Your task to perform on an android device: toggle improve location accuracy Image 0: 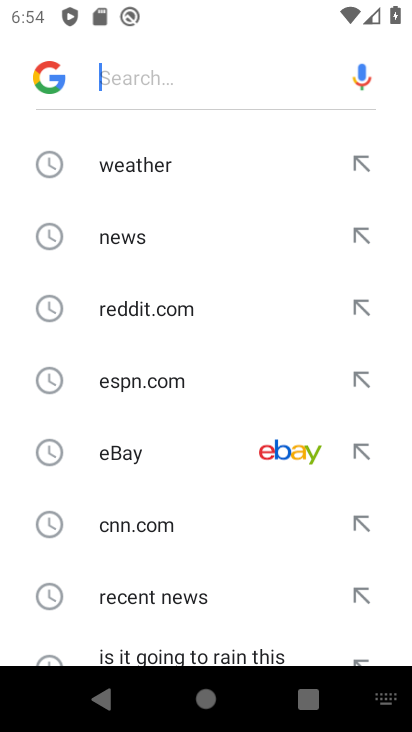
Step 0: press home button
Your task to perform on an android device: toggle improve location accuracy Image 1: 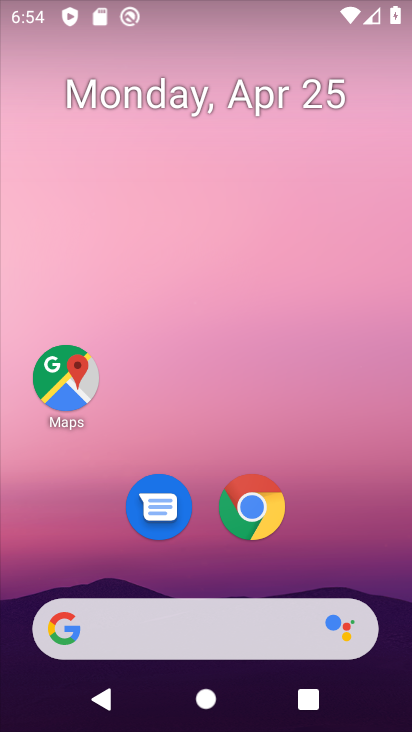
Step 1: drag from (334, 554) to (340, 29)
Your task to perform on an android device: toggle improve location accuracy Image 2: 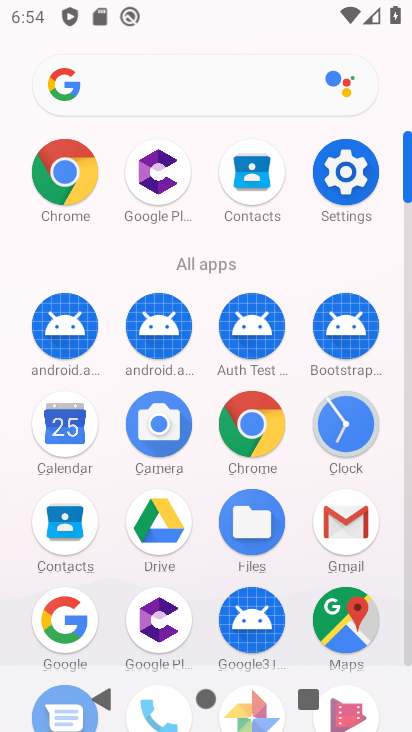
Step 2: click (354, 172)
Your task to perform on an android device: toggle improve location accuracy Image 3: 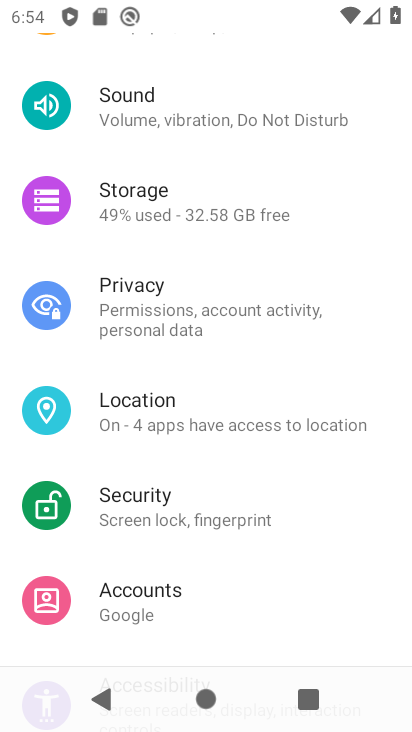
Step 3: click (218, 431)
Your task to perform on an android device: toggle improve location accuracy Image 4: 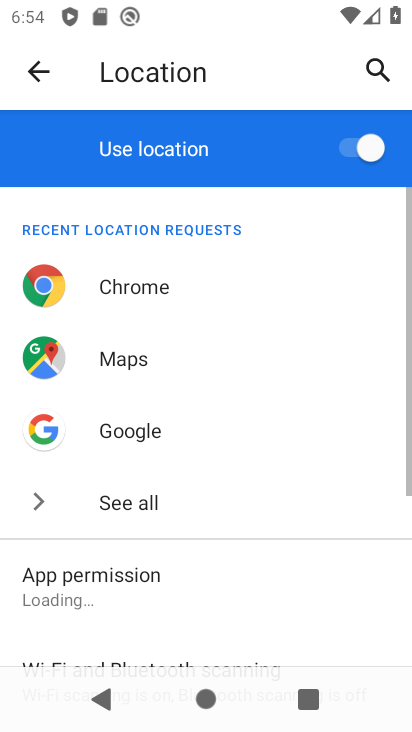
Step 4: drag from (246, 555) to (251, 168)
Your task to perform on an android device: toggle improve location accuracy Image 5: 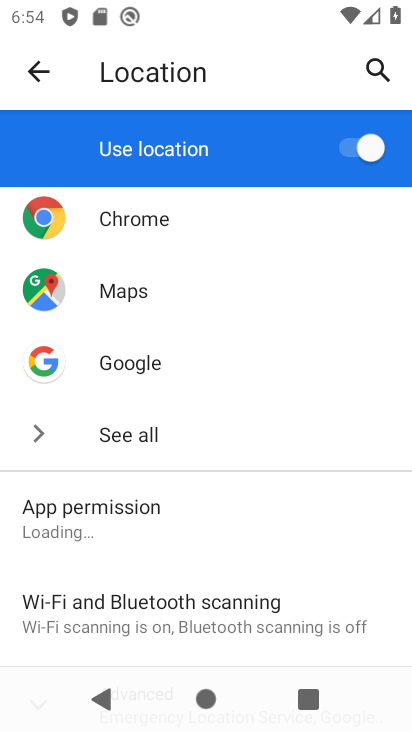
Step 5: drag from (250, 525) to (264, 226)
Your task to perform on an android device: toggle improve location accuracy Image 6: 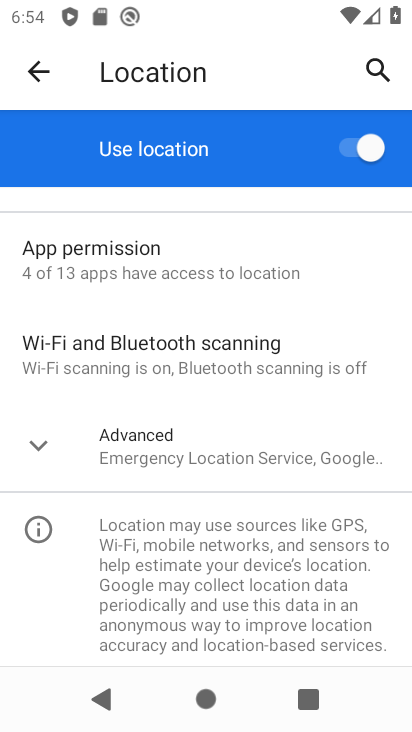
Step 6: click (214, 450)
Your task to perform on an android device: toggle improve location accuracy Image 7: 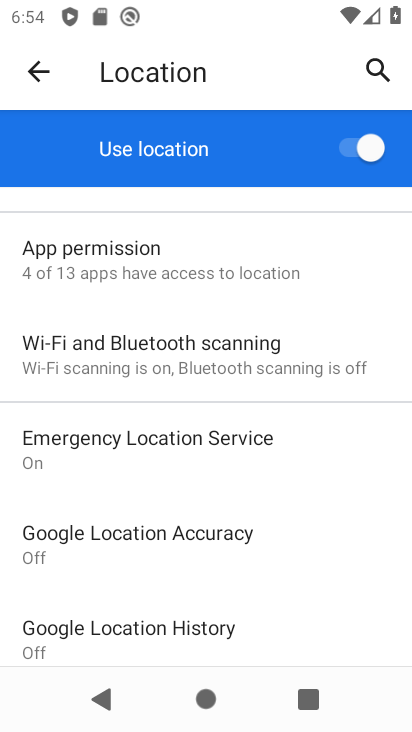
Step 7: click (185, 538)
Your task to perform on an android device: toggle improve location accuracy Image 8: 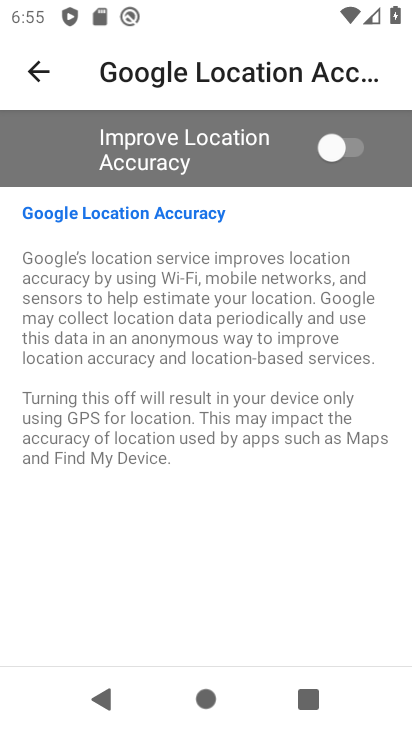
Step 8: click (311, 134)
Your task to perform on an android device: toggle improve location accuracy Image 9: 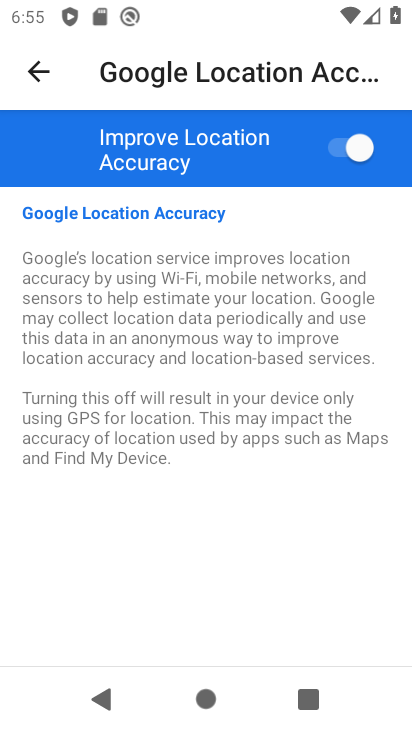
Step 9: task complete